Your task to perform on an android device: delete browsing data in the chrome app Image 0: 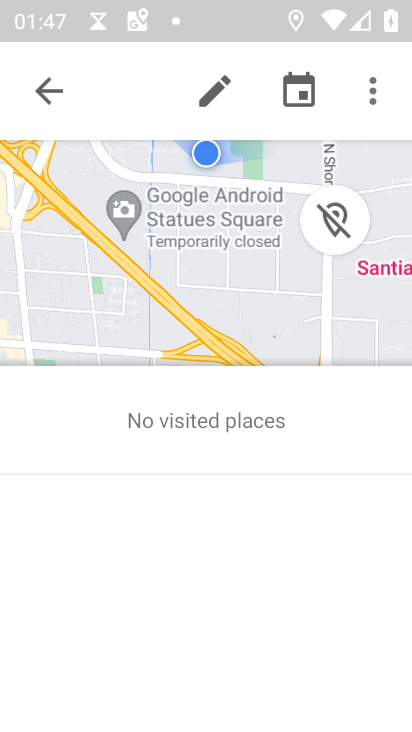
Step 0: press home button
Your task to perform on an android device: delete browsing data in the chrome app Image 1: 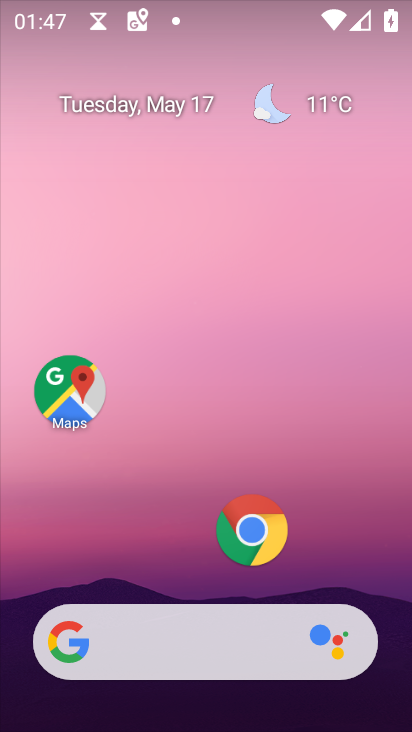
Step 1: click (256, 539)
Your task to perform on an android device: delete browsing data in the chrome app Image 2: 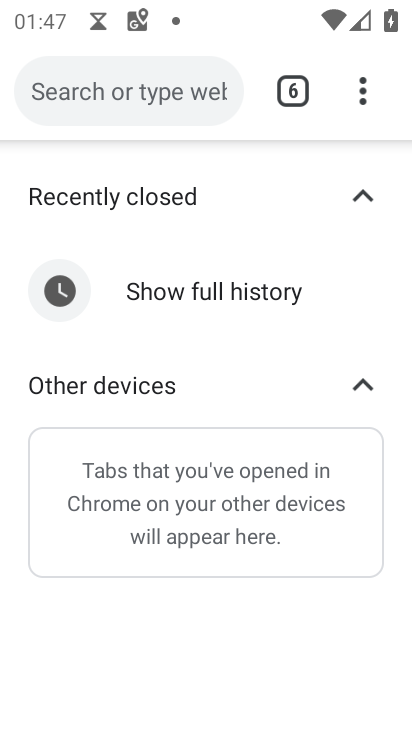
Step 2: click (352, 84)
Your task to perform on an android device: delete browsing data in the chrome app Image 3: 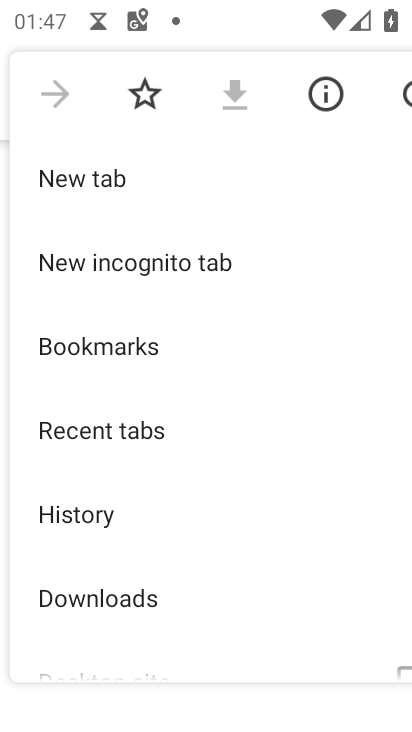
Step 3: drag from (268, 618) to (237, 61)
Your task to perform on an android device: delete browsing data in the chrome app Image 4: 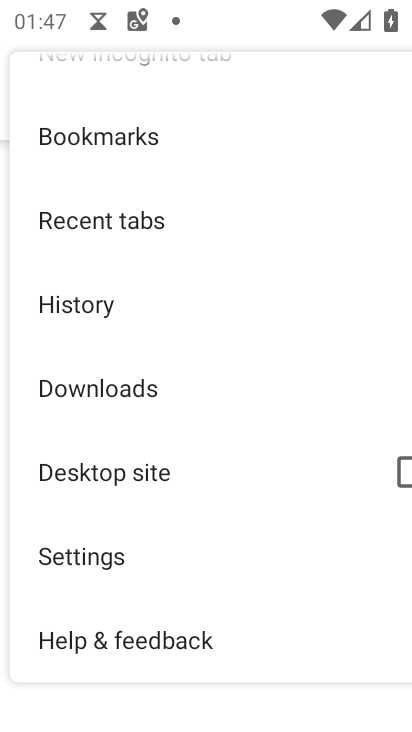
Step 4: click (142, 576)
Your task to perform on an android device: delete browsing data in the chrome app Image 5: 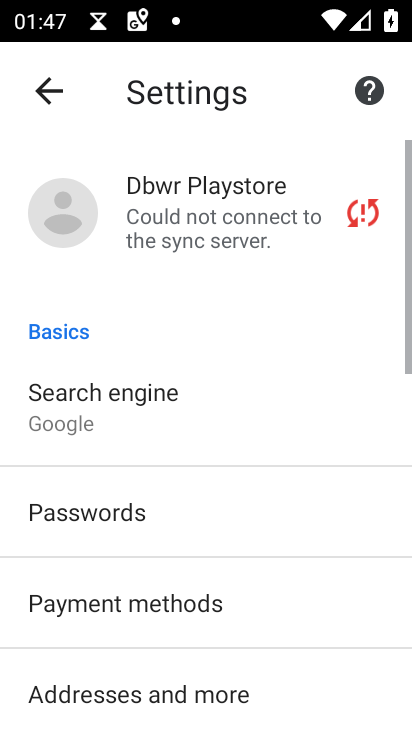
Step 5: drag from (199, 581) to (199, 227)
Your task to perform on an android device: delete browsing data in the chrome app Image 6: 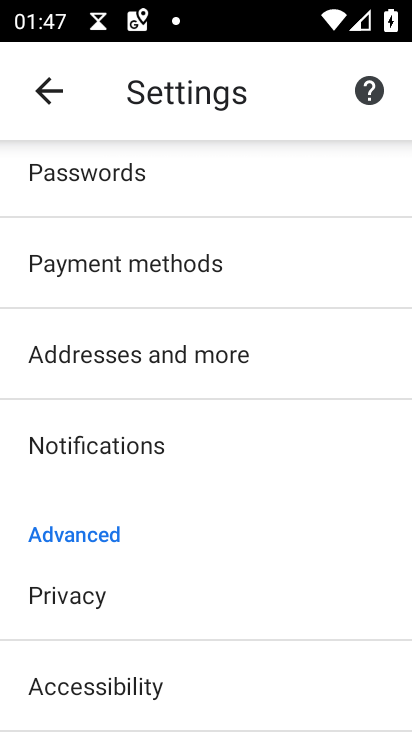
Step 6: drag from (243, 573) to (245, 203)
Your task to perform on an android device: delete browsing data in the chrome app Image 7: 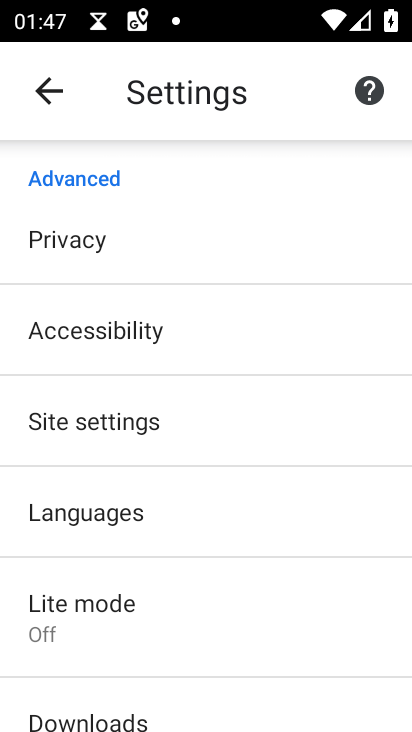
Step 7: click (218, 430)
Your task to perform on an android device: delete browsing data in the chrome app Image 8: 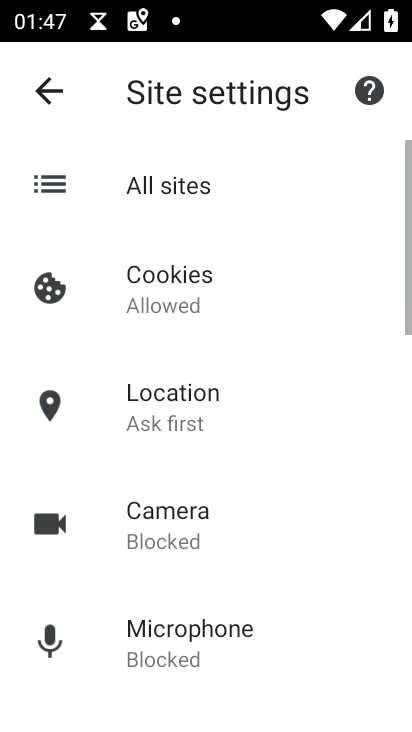
Step 8: drag from (274, 582) to (226, 226)
Your task to perform on an android device: delete browsing data in the chrome app Image 9: 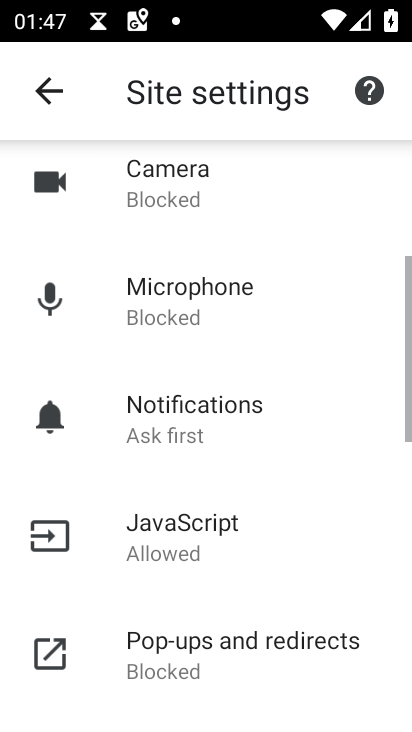
Step 9: drag from (283, 570) to (276, 339)
Your task to perform on an android device: delete browsing data in the chrome app Image 10: 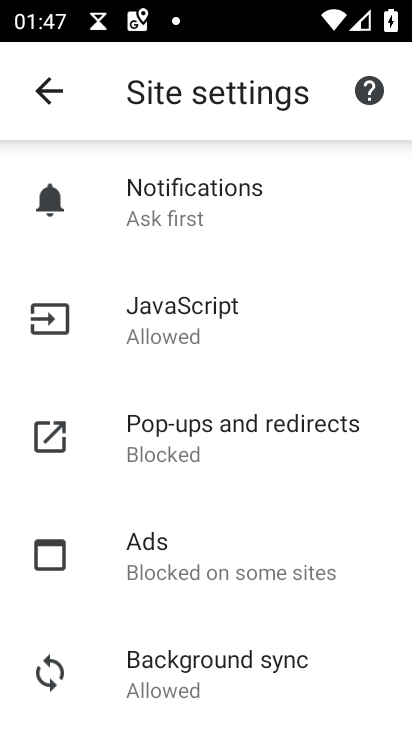
Step 10: drag from (275, 578) to (260, 265)
Your task to perform on an android device: delete browsing data in the chrome app Image 11: 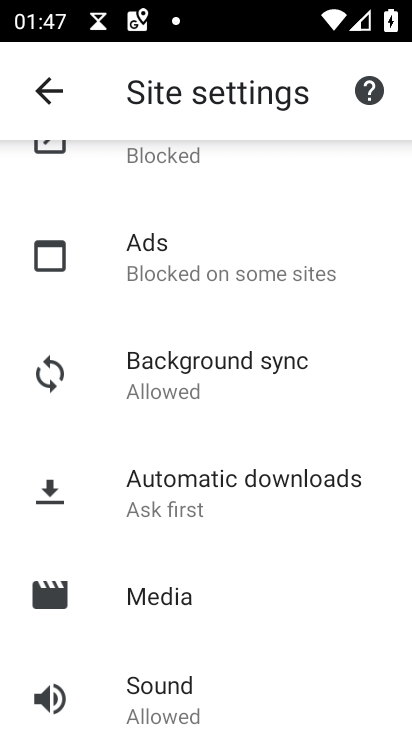
Step 11: drag from (299, 560) to (300, 291)
Your task to perform on an android device: delete browsing data in the chrome app Image 12: 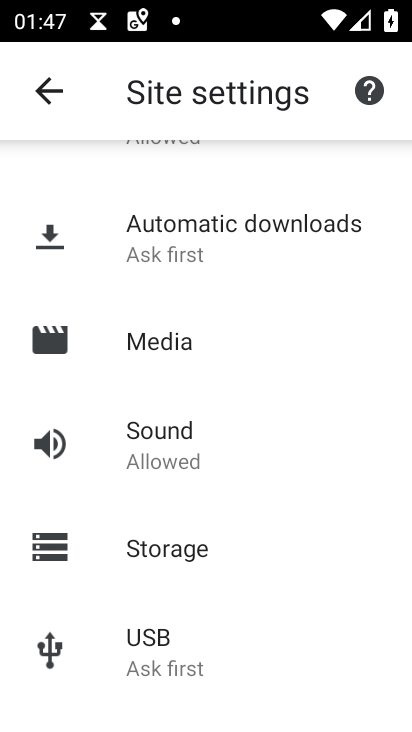
Step 12: drag from (332, 563) to (332, 161)
Your task to perform on an android device: delete browsing data in the chrome app Image 13: 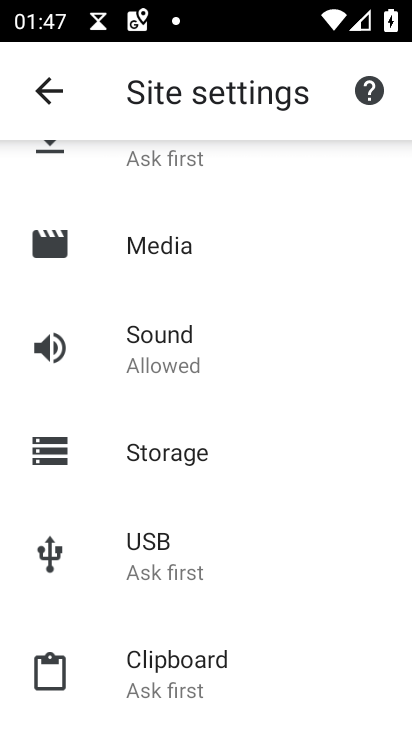
Step 13: press back button
Your task to perform on an android device: delete browsing data in the chrome app Image 14: 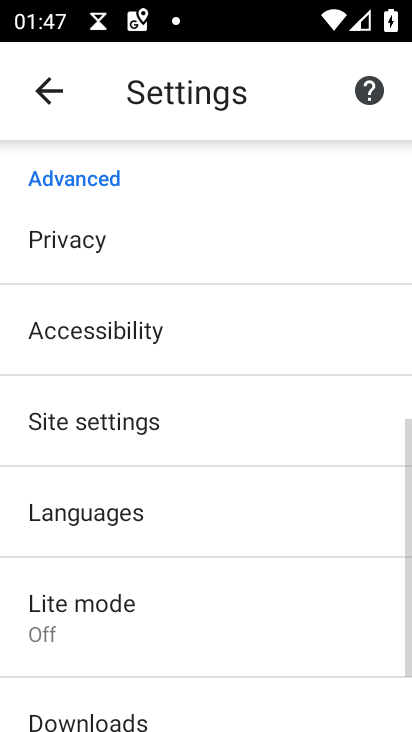
Step 14: drag from (260, 577) to (257, 247)
Your task to perform on an android device: delete browsing data in the chrome app Image 15: 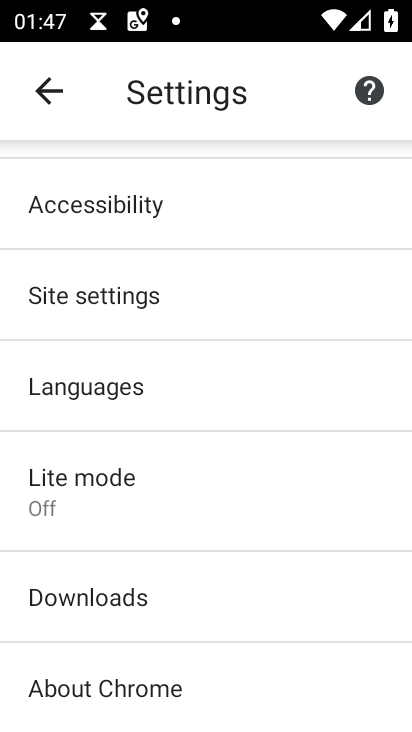
Step 15: drag from (168, 642) to (184, 381)
Your task to perform on an android device: delete browsing data in the chrome app Image 16: 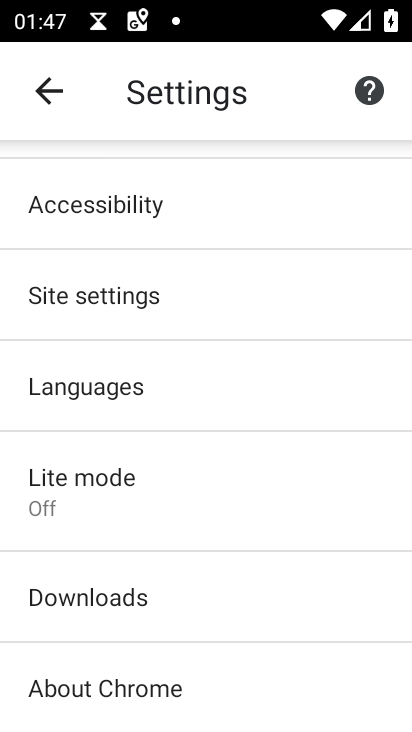
Step 16: click (198, 194)
Your task to perform on an android device: delete browsing data in the chrome app Image 17: 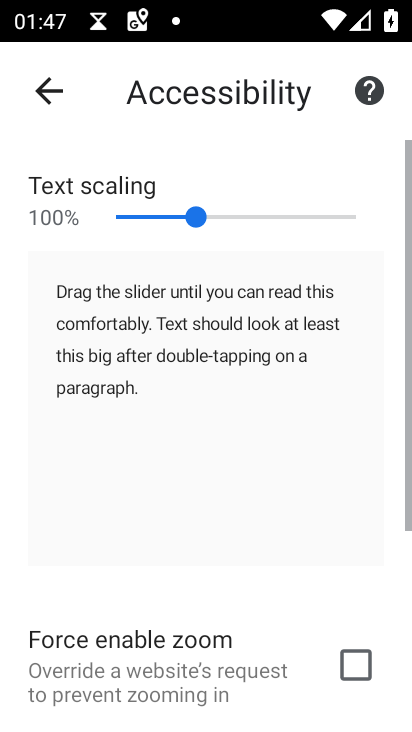
Step 17: drag from (260, 595) to (261, 171)
Your task to perform on an android device: delete browsing data in the chrome app Image 18: 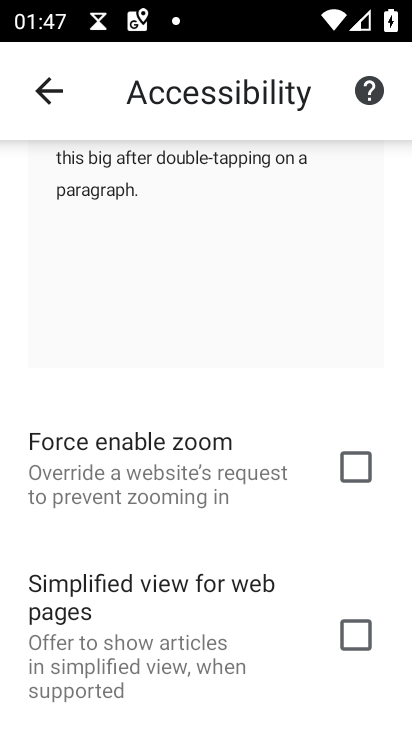
Step 18: press back button
Your task to perform on an android device: delete browsing data in the chrome app Image 19: 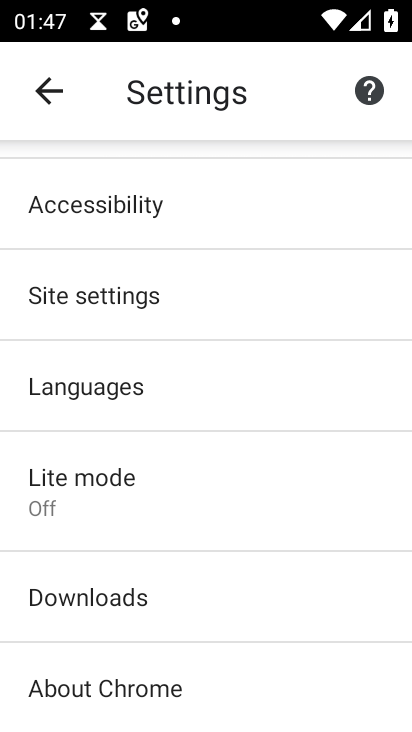
Step 19: drag from (232, 221) to (260, 509)
Your task to perform on an android device: delete browsing data in the chrome app Image 20: 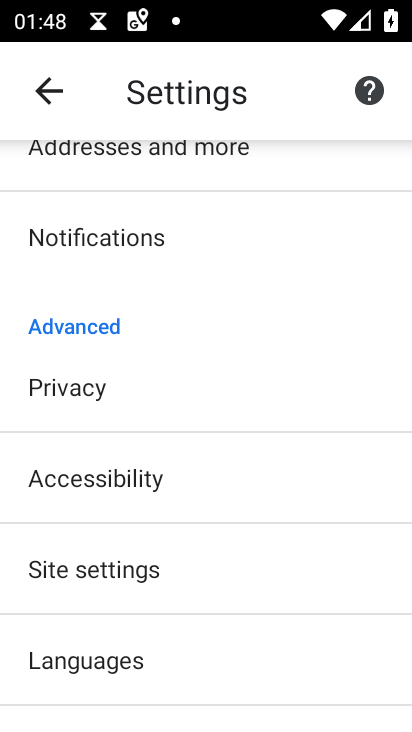
Step 20: click (181, 396)
Your task to perform on an android device: delete browsing data in the chrome app Image 21: 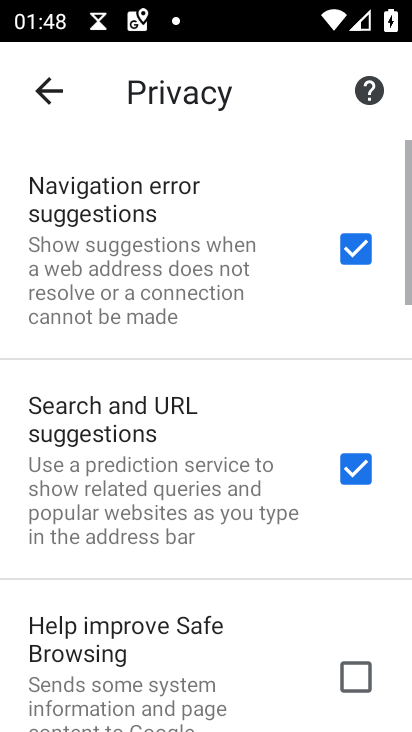
Step 21: drag from (181, 645) to (181, 234)
Your task to perform on an android device: delete browsing data in the chrome app Image 22: 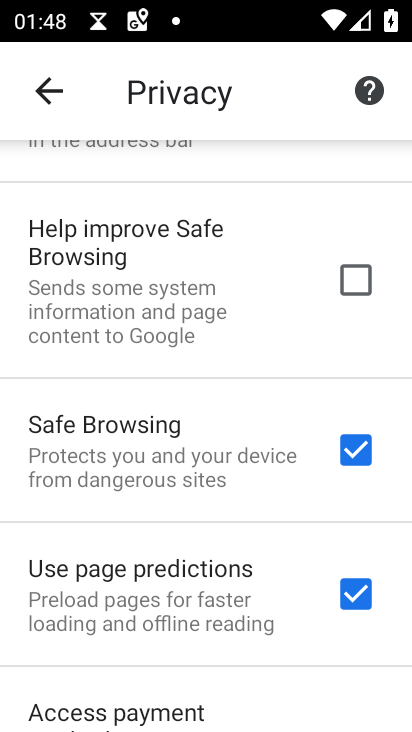
Step 22: drag from (181, 530) to (164, 120)
Your task to perform on an android device: delete browsing data in the chrome app Image 23: 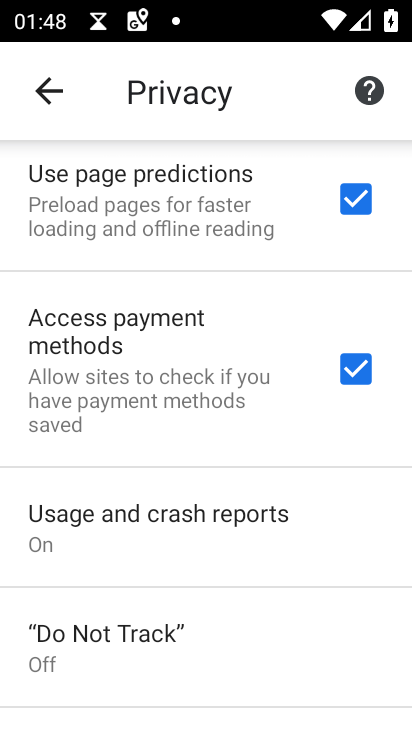
Step 23: drag from (146, 542) to (135, 227)
Your task to perform on an android device: delete browsing data in the chrome app Image 24: 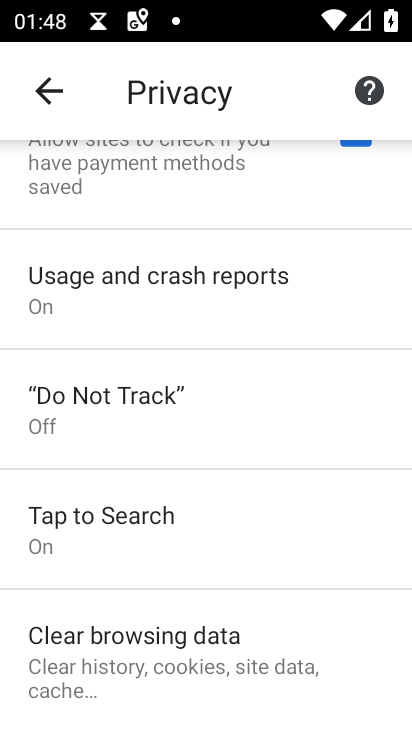
Step 24: drag from (161, 561) to (164, 312)
Your task to perform on an android device: delete browsing data in the chrome app Image 25: 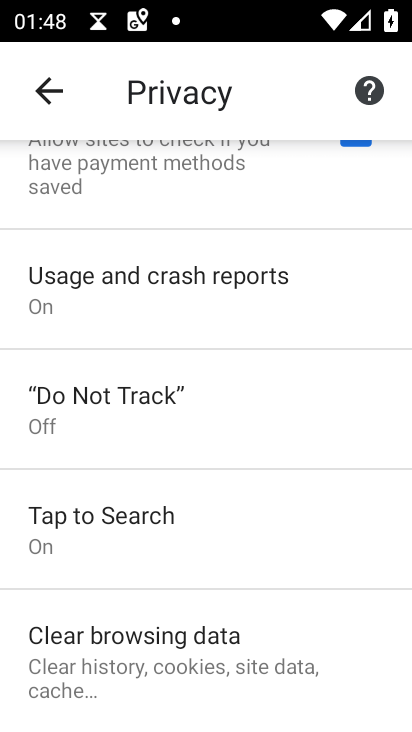
Step 25: click (167, 640)
Your task to perform on an android device: delete browsing data in the chrome app Image 26: 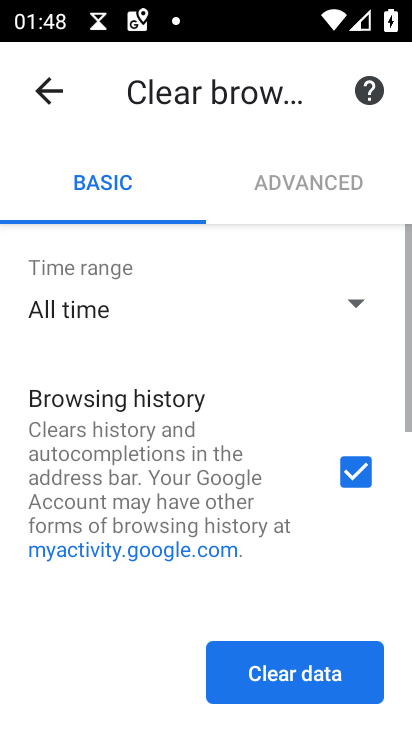
Step 26: click (268, 674)
Your task to perform on an android device: delete browsing data in the chrome app Image 27: 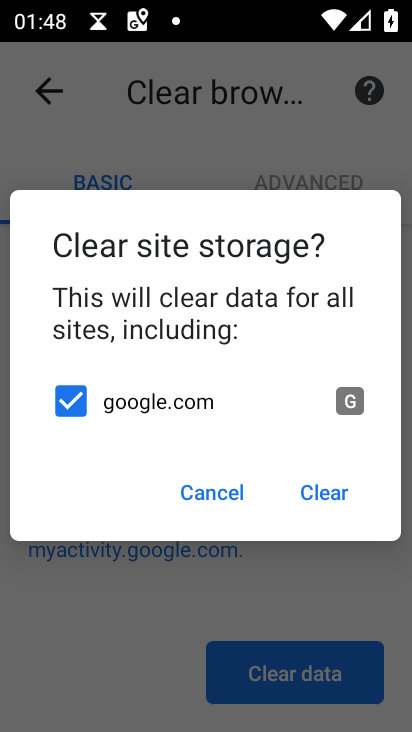
Step 27: click (316, 489)
Your task to perform on an android device: delete browsing data in the chrome app Image 28: 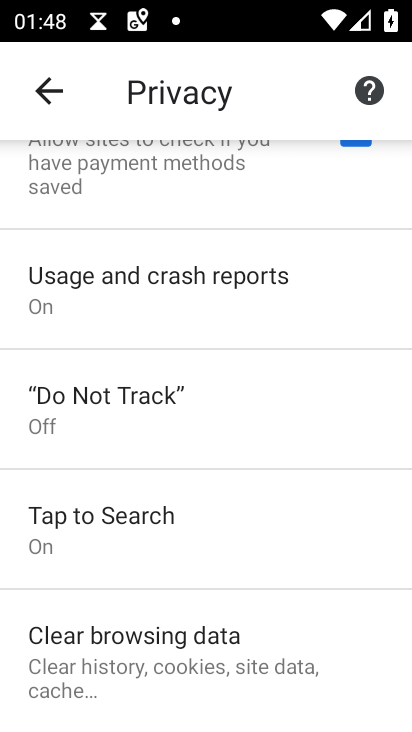
Step 28: click (181, 639)
Your task to perform on an android device: delete browsing data in the chrome app Image 29: 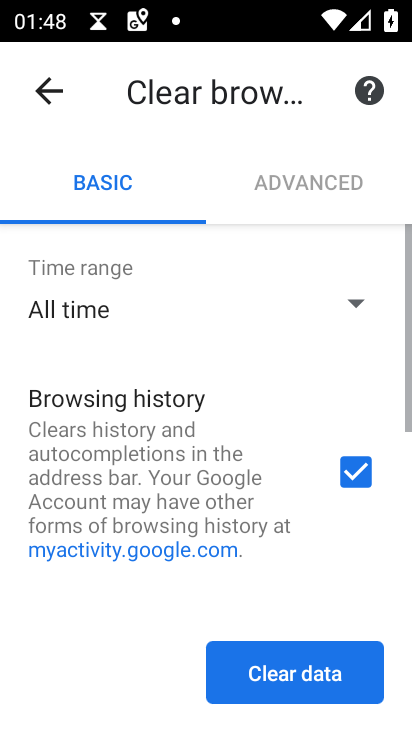
Step 29: click (269, 662)
Your task to perform on an android device: delete browsing data in the chrome app Image 30: 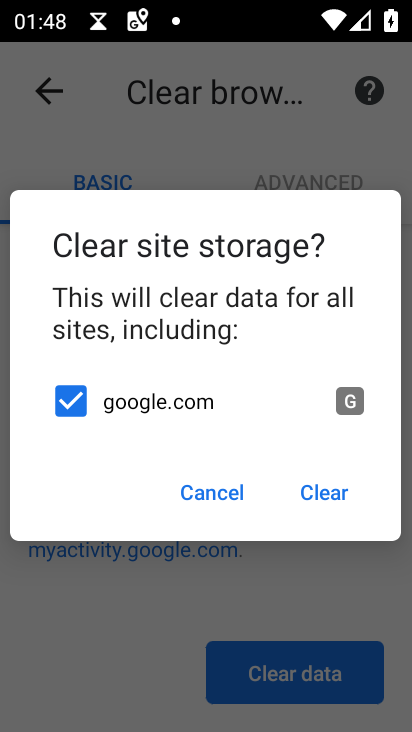
Step 30: click (306, 488)
Your task to perform on an android device: delete browsing data in the chrome app Image 31: 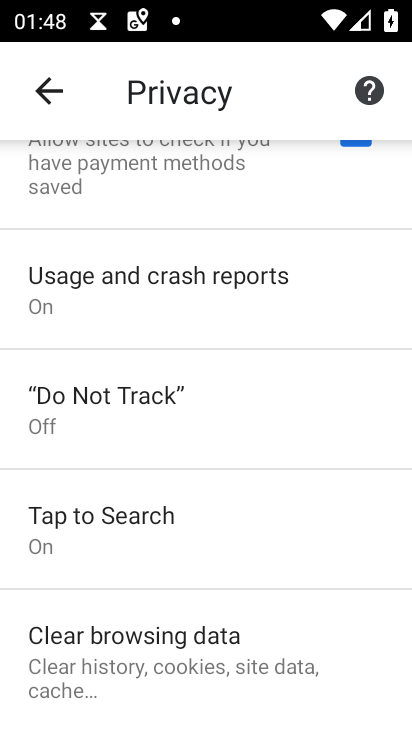
Step 31: task complete